Your task to perform on an android device: turn off data saver in the chrome app Image 0: 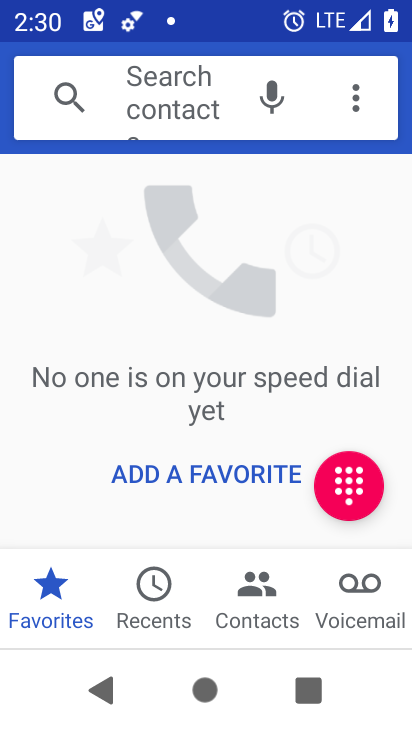
Step 0: press home button
Your task to perform on an android device: turn off data saver in the chrome app Image 1: 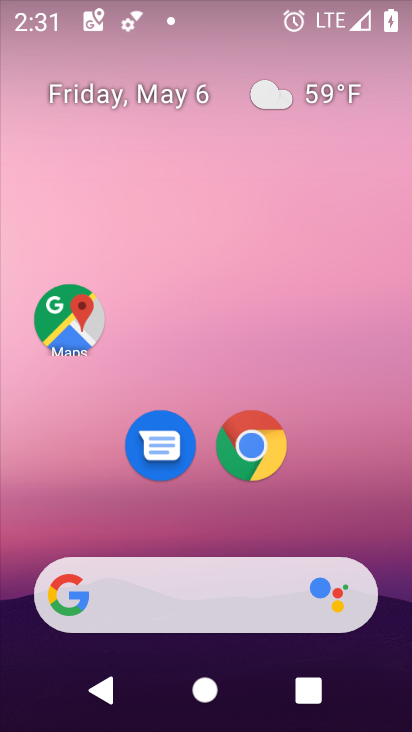
Step 1: click (243, 457)
Your task to perform on an android device: turn off data saver in the chrome app Image 2: 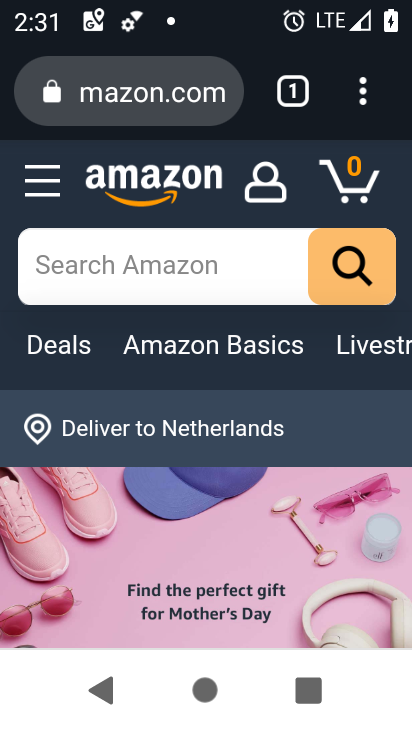
Step 2: click (368, 107)
Your task to perform on an android device: turn off data saver in the chrome app Image 3: 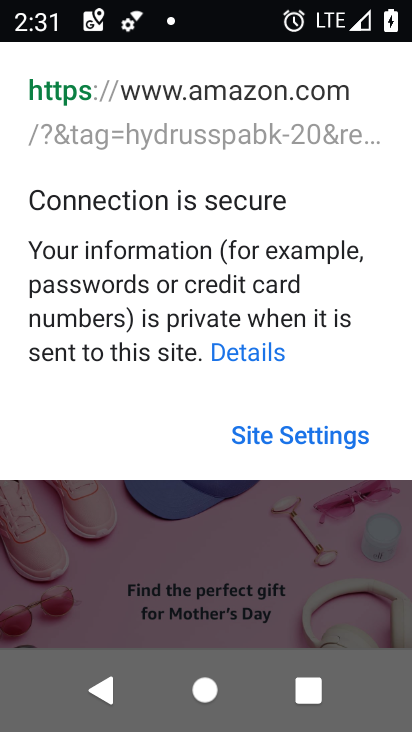
Step 3: click (325, 549)
Your task to perform on an android device: turn off data saver in the chrome app Image 4: 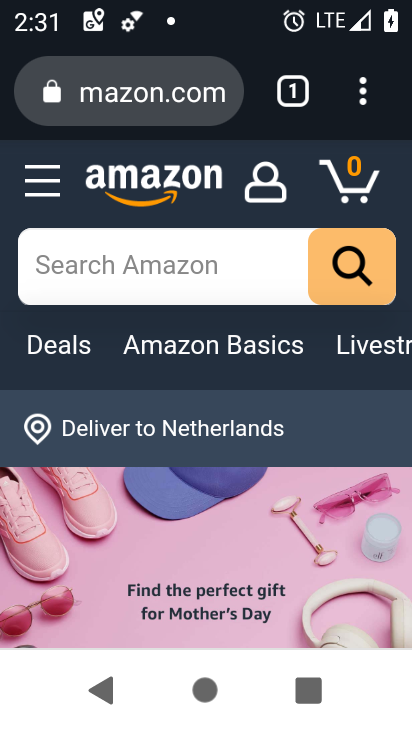
Step 4: click (355, 105)
Your task to perform on an android device: turn off data saver in the chrome app Image 5: 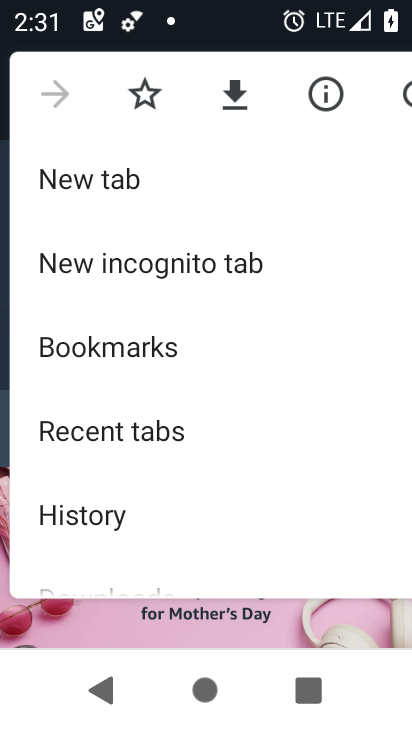
Step 5: drag from (106, 504) to (95, 374)
Your task to perform on an android device: turn off data saver in the chrome app Image 6: 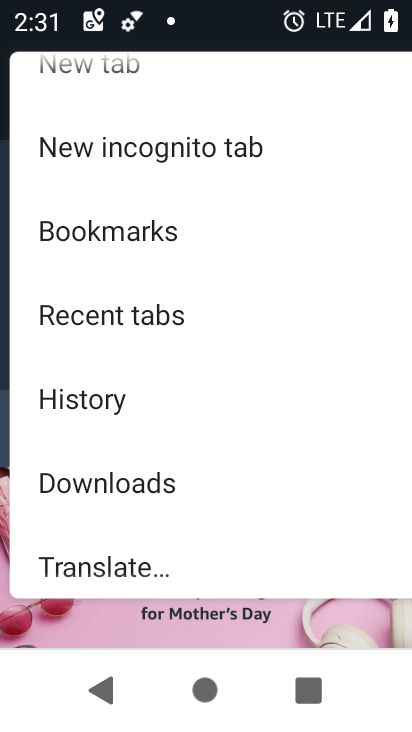
Step 6: drag from (96, 476) to (114, 336)
Your task to perform on an android device: turn off data saver in the chrome app Image 7: 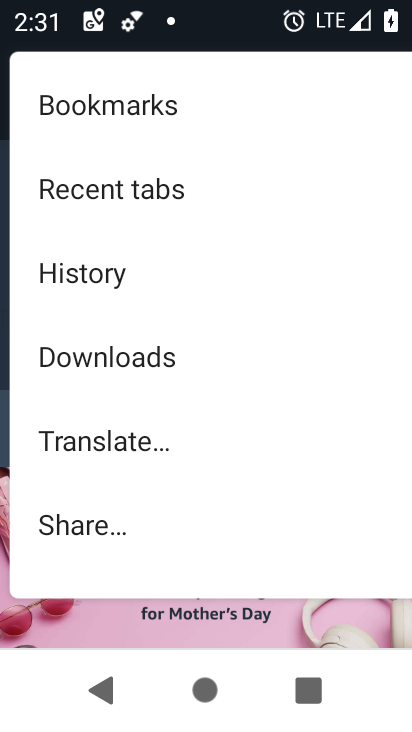
Step 7: drag from (140, 519) to (133, 375)
Your task to perform on an android device: turn off data saver in the chrome app Image 8: 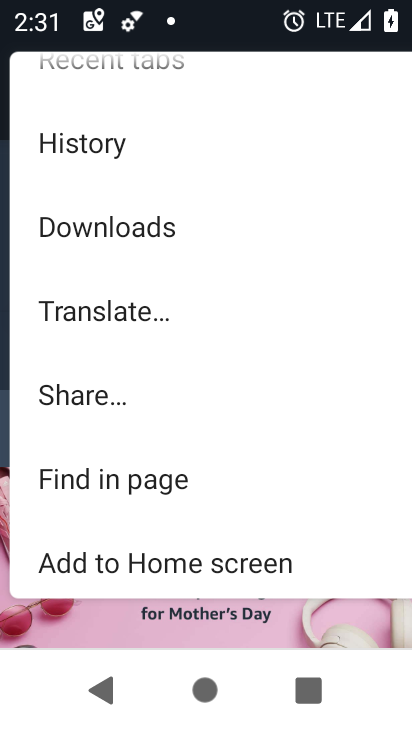
Step 8: drag from (177, 530) to (160, 401)
Your task to perform on an android device: turn off data saver in the chrome app Image 9: 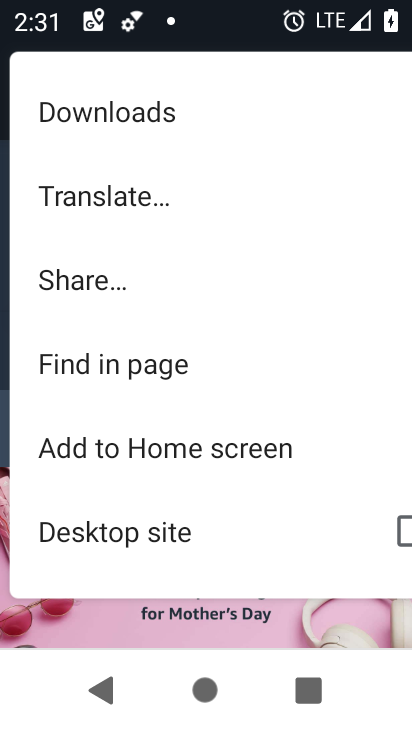
Step 9: drag from (184, 515) to (203, 351)
Your task to perform on an android device: turn off data saver in the chrome app Image 10: 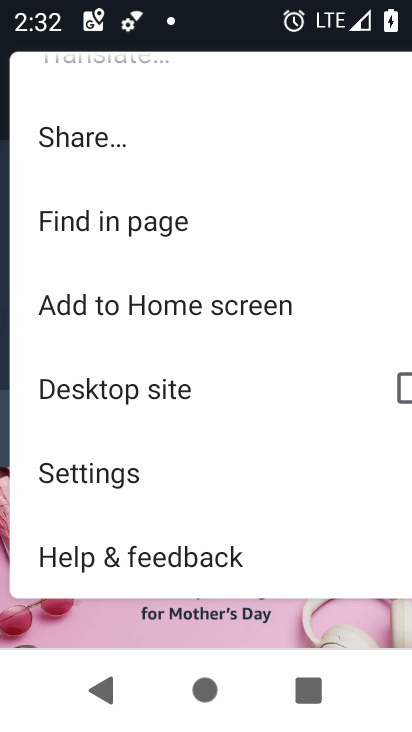
Step 10: click (204, 495)
Your task to perform on an android device: turn off data saver in the chrome app Image 11: 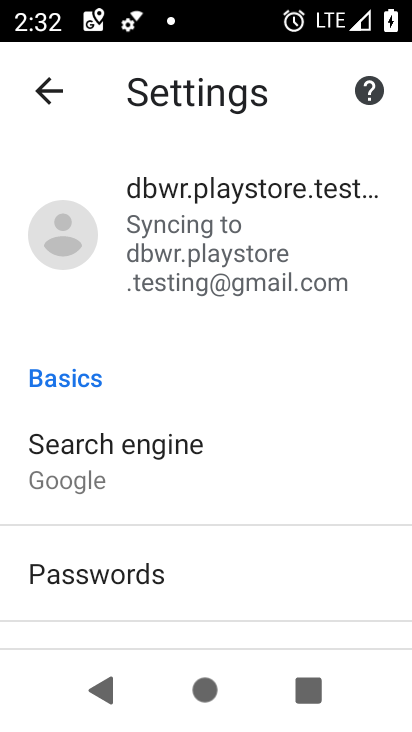
Step 11: drag from (181, 553) to (178, 398)
Your task to perform on an android device: turn off data saver in the chrome app Image 12: 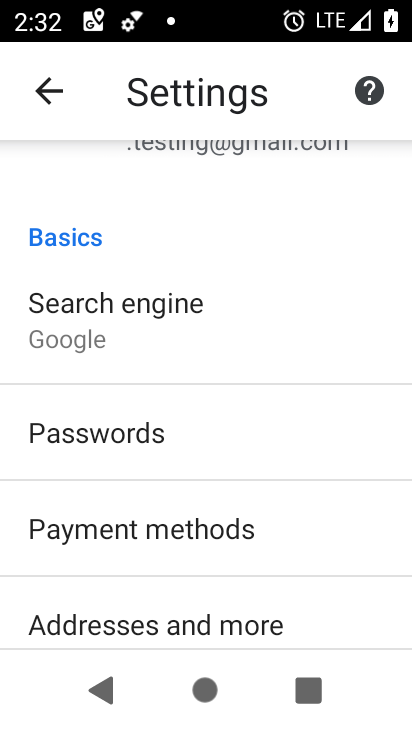
Step 12: drag from (204, 570) to (182, 425)
Your task to perform on an android device: turn off data saver in the chrome app Image 13: 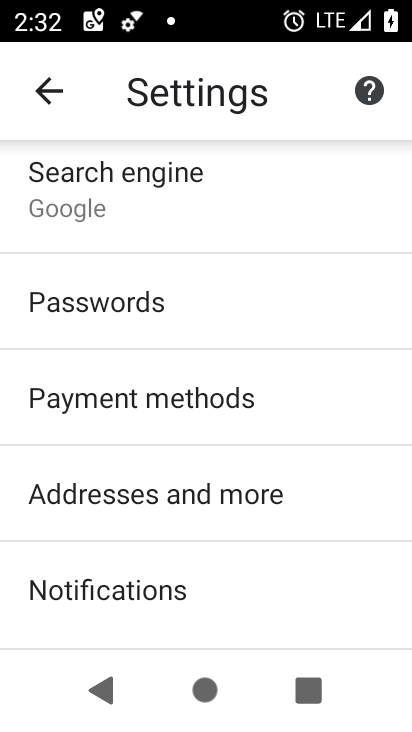
Step 13: drag from (189, 572) to (183, 382)
Your task to perform on an android device: turn off data saver in the chrome app Image 14: 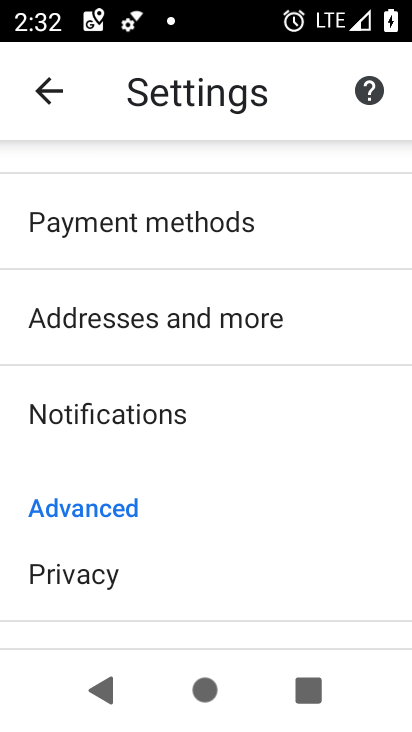
Step 14: drag from (174, 616) to (195, 390)
Your task to perform on an android device: turn off data saver in the chrome app Image 15: 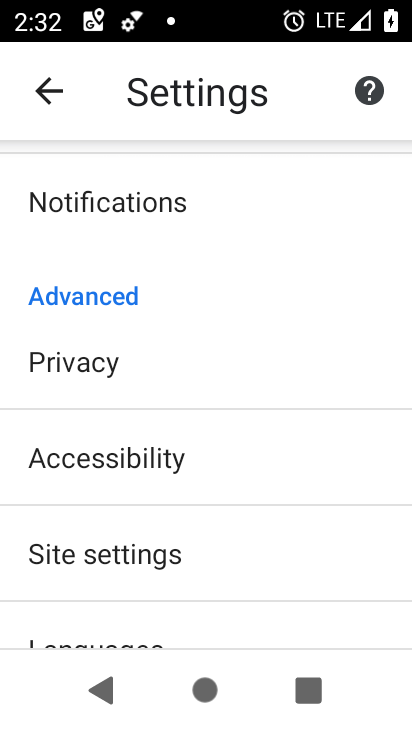
Step 15: drag from (176, 553) to (201, 391)
Your task to perform on an android device: turn off data saver in the chrome app Image 16: 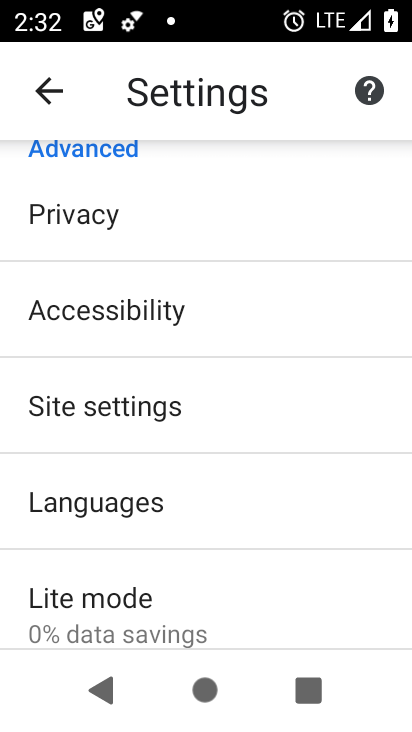
Step 16: click (184, 586)
Your task to perform on an android device: turn off data saver in the chrome app Image 17: 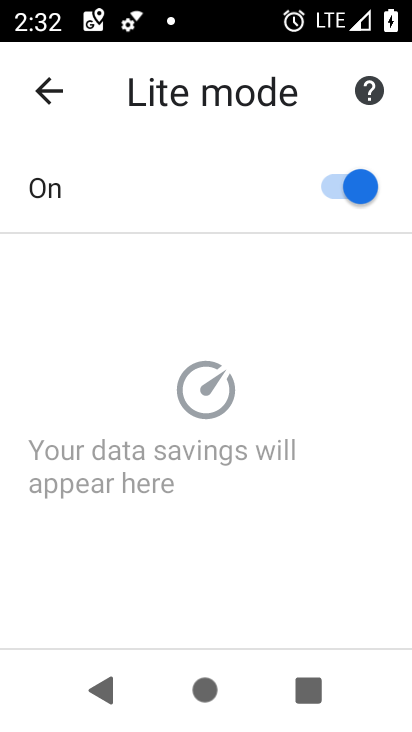
Step 17: click (336, 169)
Your task to perform on an android device: turn off data saver in the chrome app Image 18: 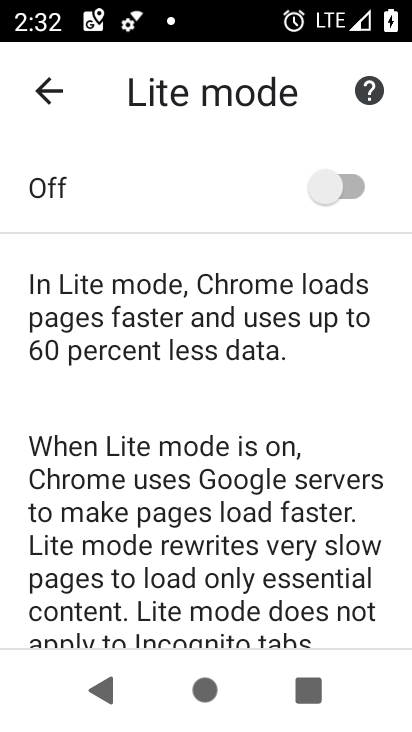
Step 18: task complete